Your task to perform on an android device: change alarm snooze length Image 0: 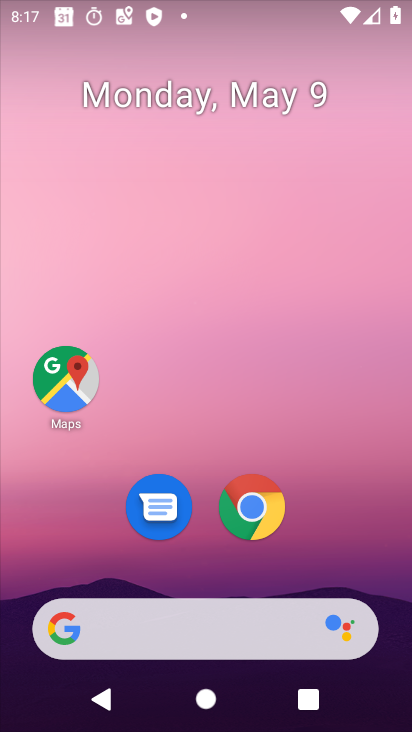
Step 0: press home button
Your task to perform on an android device: change alarm snooze length Image 1: 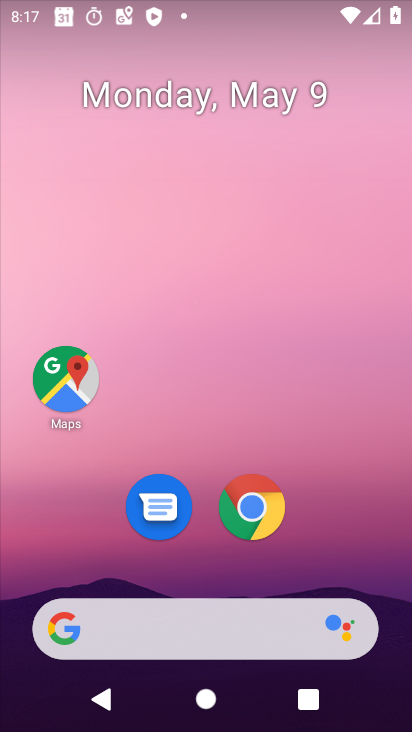
Step 1: drag from (257, 698) to (236, 297)
Your task to perform on an android device: change alarm snooze length Image 2: 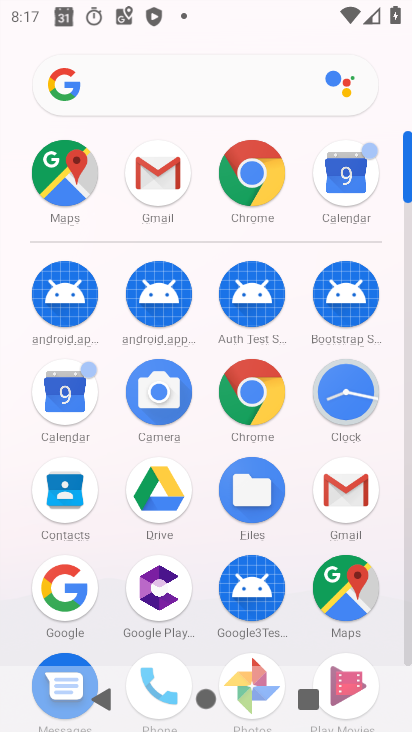
Step 2: click (353, 397)
Your task to perform on an android device: change alarm snooze length Image 3: 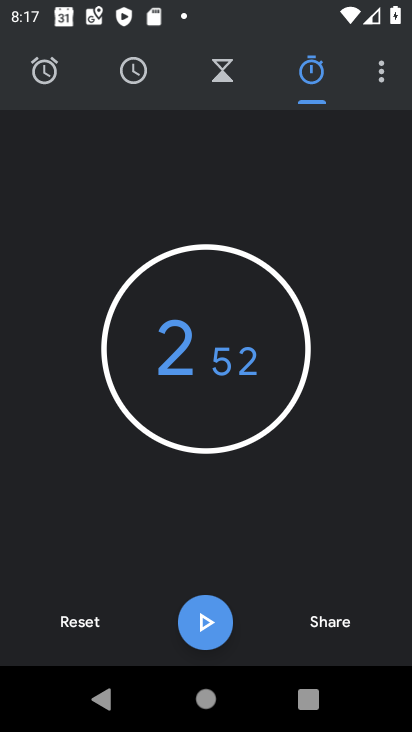
Step 3: click (380, 93)
Your task to perform on an android device: change alarm snooze length Image 4: 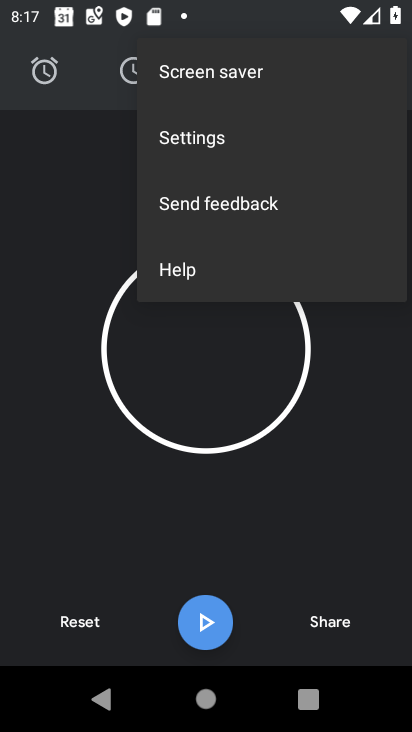
Step 4: click (270, 134)
Your task to perform on an android device: change alarm snooze length Image 5: 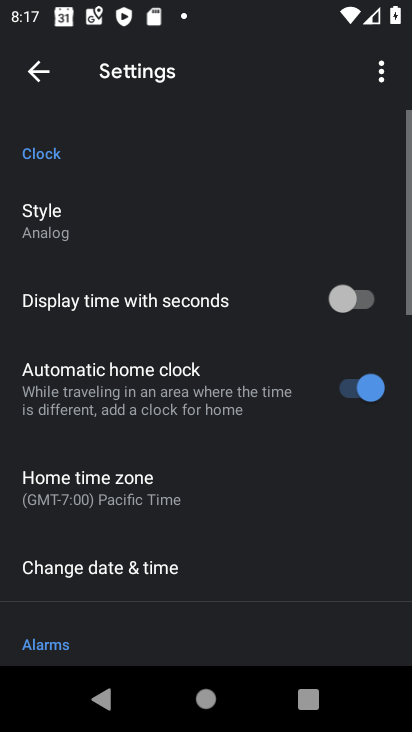
Step 5: drag from (171, 544) to (196, 316)
Your task to perform on an android device: change alarm snooze length Image 6: 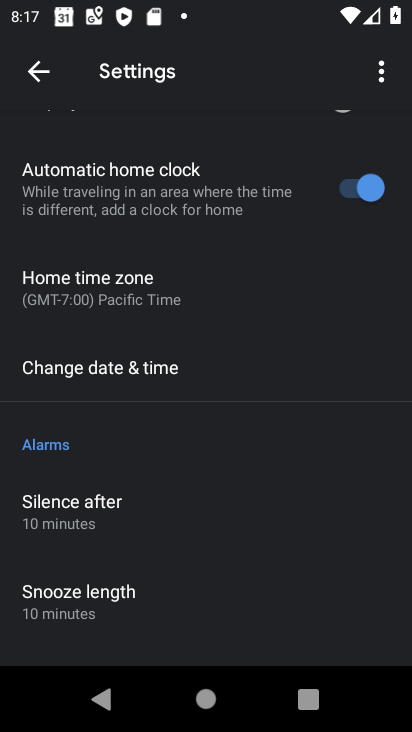
Step 6: click (96, 589)
Your task to perform on an android device: change alarm snooze length Image 7: 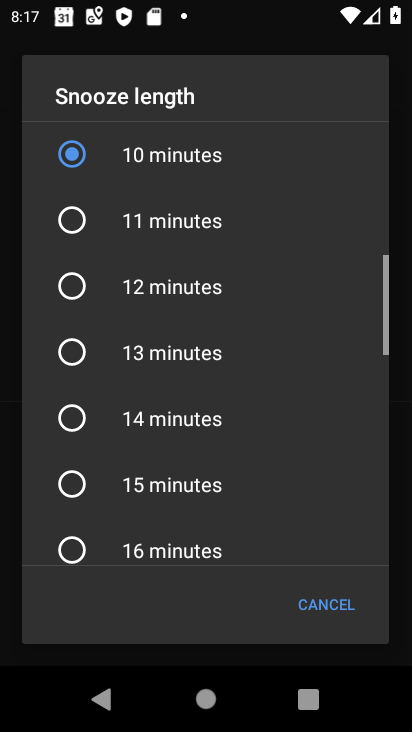
Step 7: click (156, 360)
Your task to perform on an android device: change alarm snooze length Image 8: 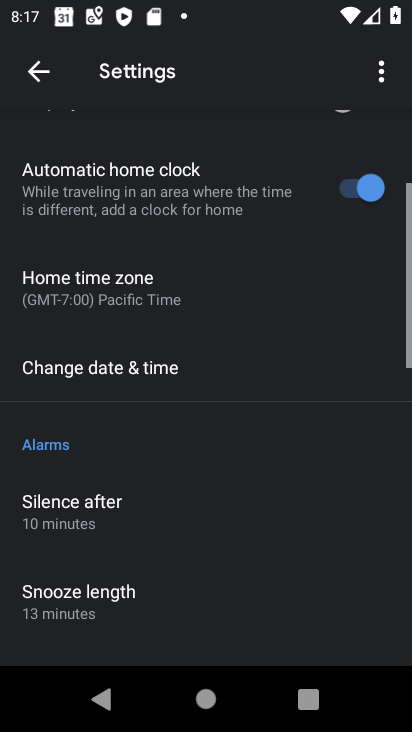
Step 8: task complete